Your task to perform on an android device: turn off location history Image 0: 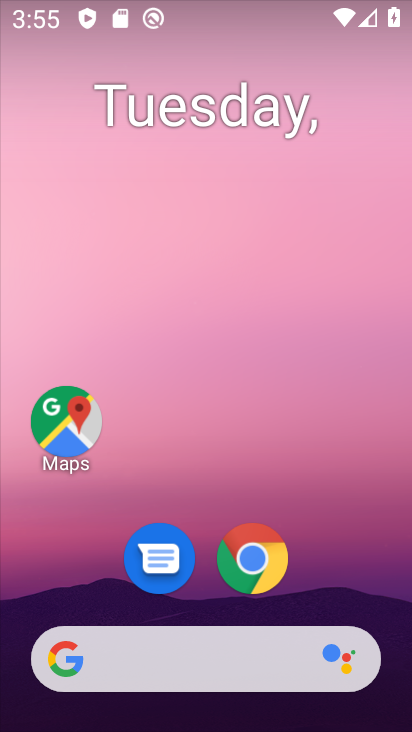
Step 0: click (71, 431)
Your task to perform on an android device: turn off location history Image 1: 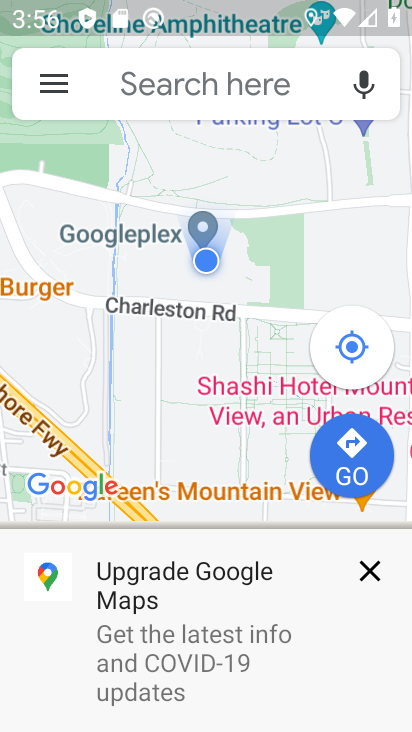
Step 1: click (42, 86)
Your task to perform on an android device: turn off location history Image 2: 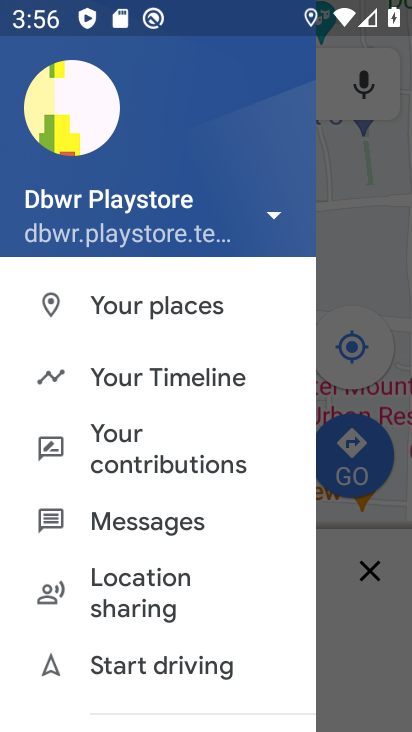
Step 2: click (207, 390)
Your task to perform on an android device: turn off location history Image 3: 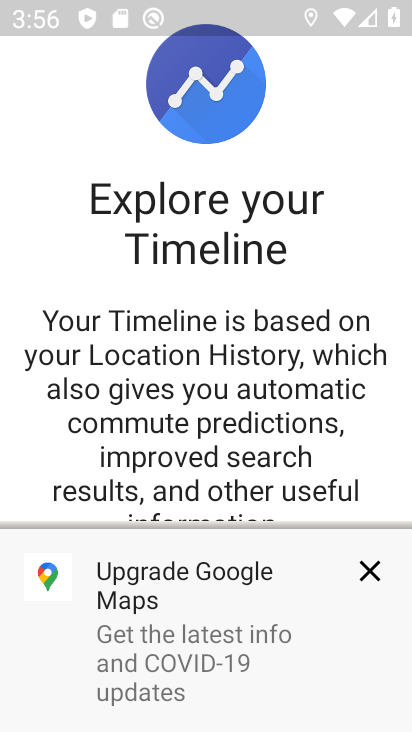
Step 3: click (373, 574)
Your task to perform on an android device: turn off location history Image 4: 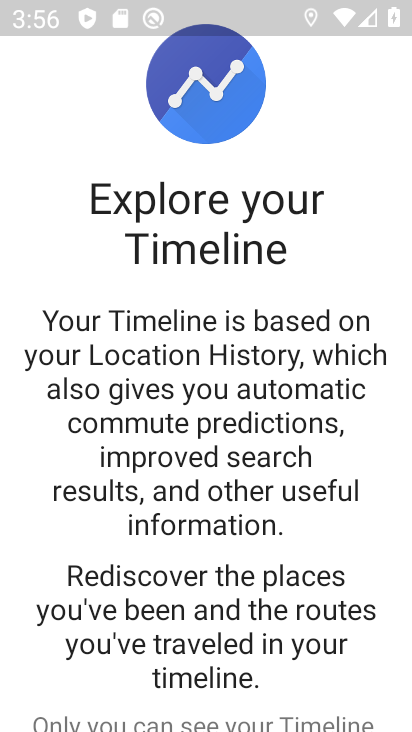
Step 4: drag from (333, 595) to (268, 232)
Your task to perform on an android device: turn off location history Image 5: 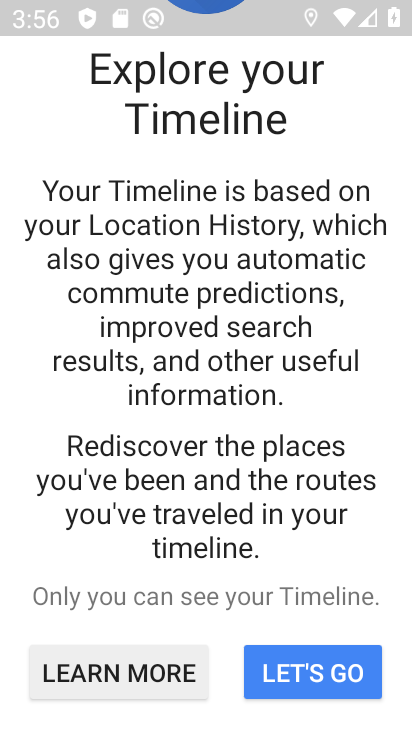
Step 5: click (336, 658)
Your task to perform on an android device: turn off location history Image 6: 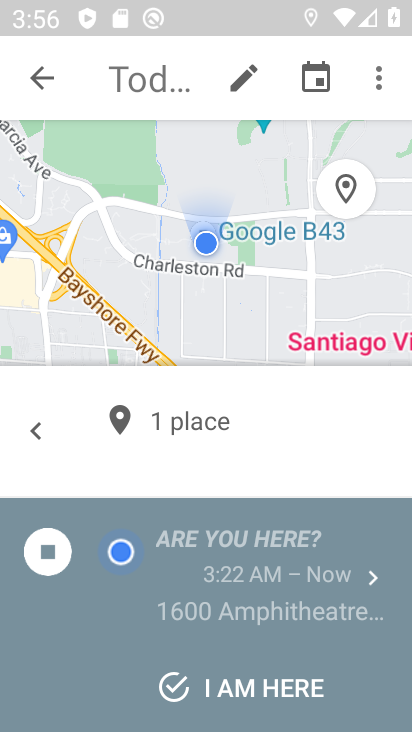
Step 6: click (387, 94)
Your task to perform on an android device: turn off location history Image 7: 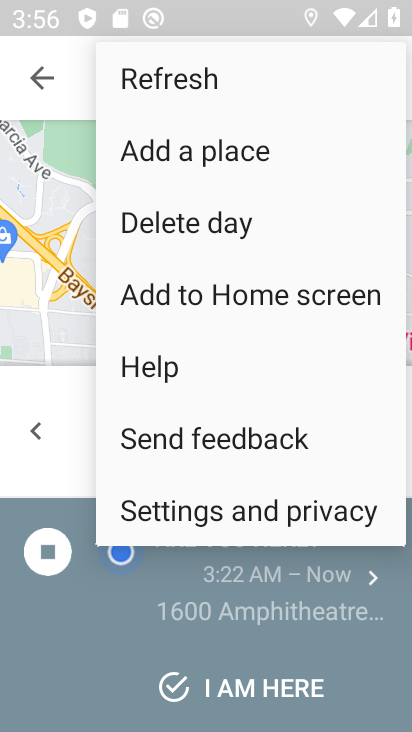
Step 7: click (317, 498)
Your task to perform on an android device: turn off location history Image 8: 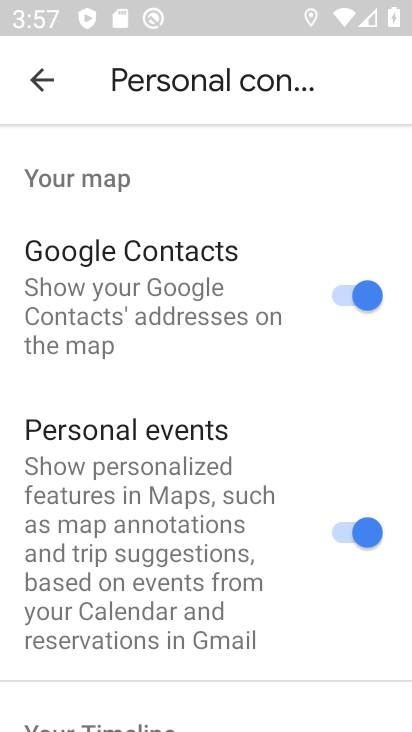
Step 8: drag from (269, 666) to (186, 66)
Your task to perform on an android device: turn off location history Image 9: 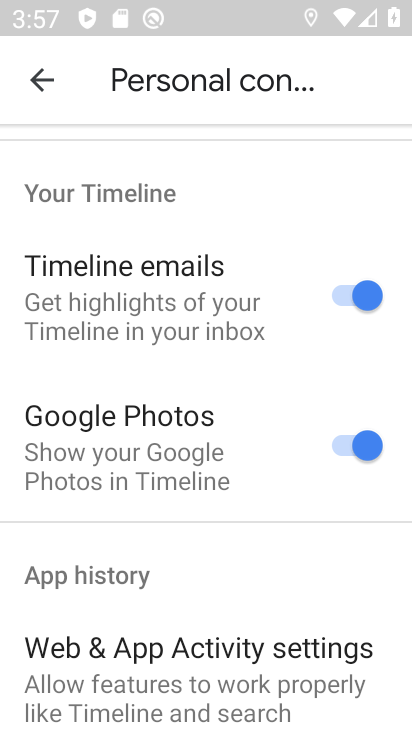
Step 9: drag from (168, 615) to (125, 216)
Your task to perform on an android device: turn off location history Image 10: 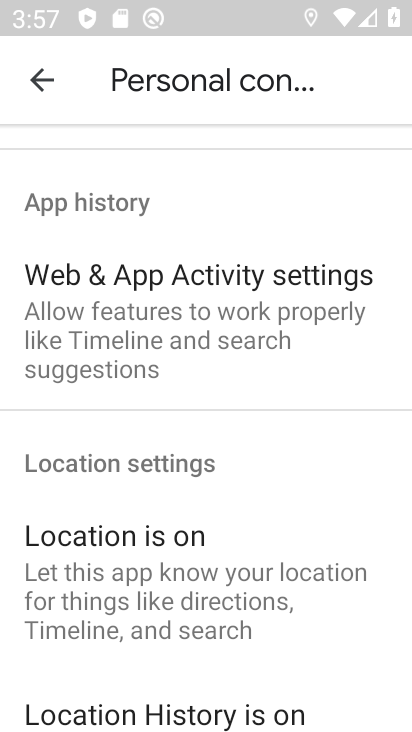
Step 10: drag from (222, 559) to (187, 203)
Your task to perform on an android device: turn off location history Image 11: 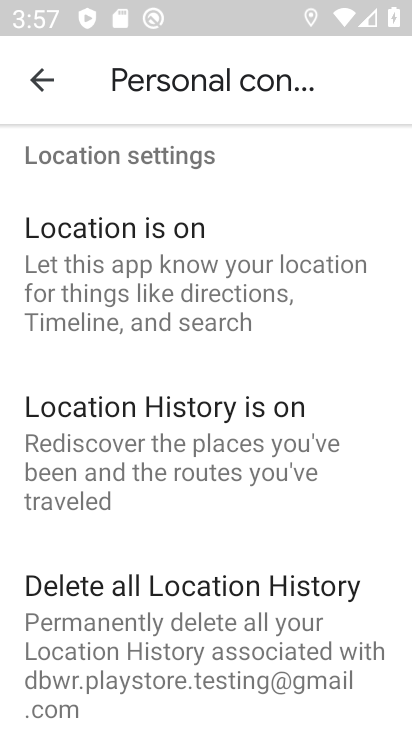
Step 11: click (248, 439)
Your task to perform on an android device: turn off location history Image 12: 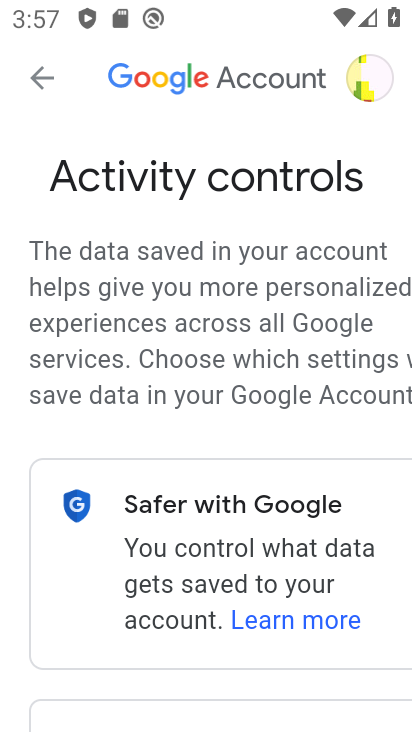
Step 12: drag from (235, 691) to (211, 225)
Your task to perform on an android device: turn off location history Image 13: 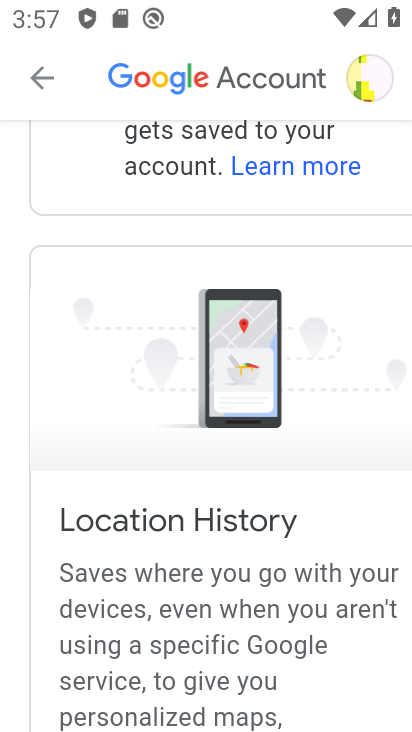
Step 13: drag from (263, 680) to (228, 209)
Your task to perform on an android device: turn off location history Image 14: 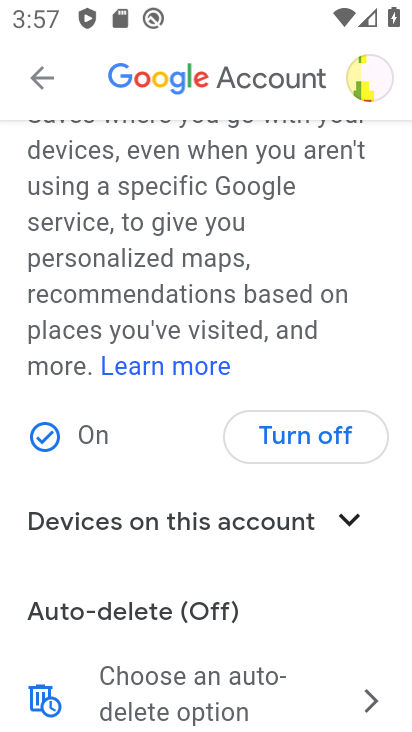
Step 14: click (312, 427)
Your task to perform on an android device: turn off location history Image 15: 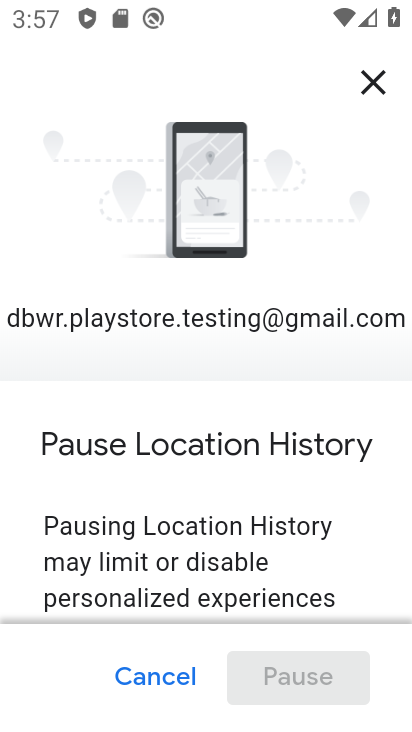
Step 15: drag from (304, 592) to (239, 192)
Your task to perform on an android device: turn off location history Image 16: 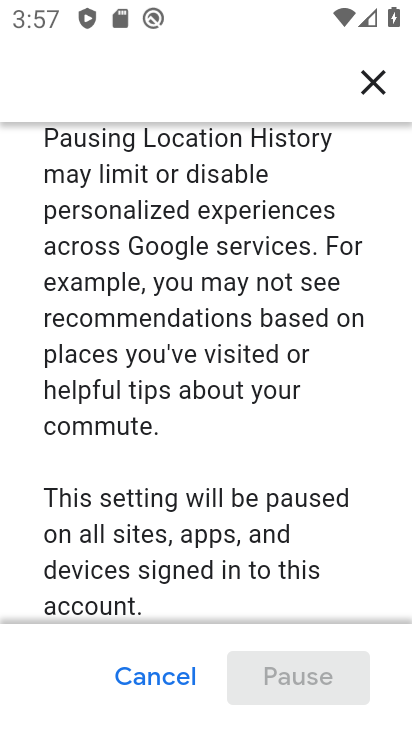
Step 16: drag from (328, 541) to (234, 239)
Your task to perform on an android device: turn off location history Image 17: 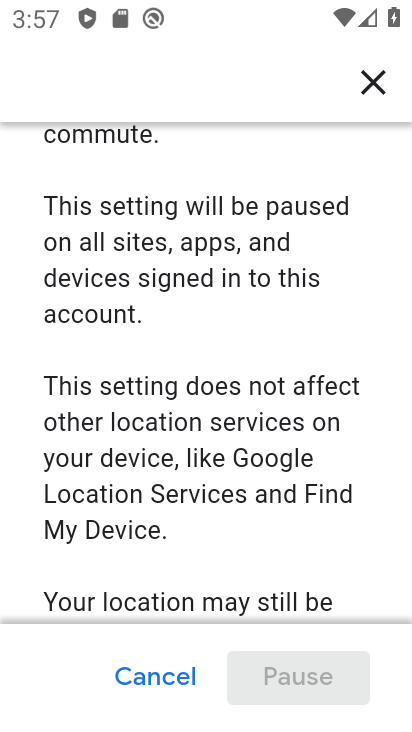
Step 17: drag from (302, 540) to (213, 231)
Your task to perform on an android device: turn off location history Image 18: 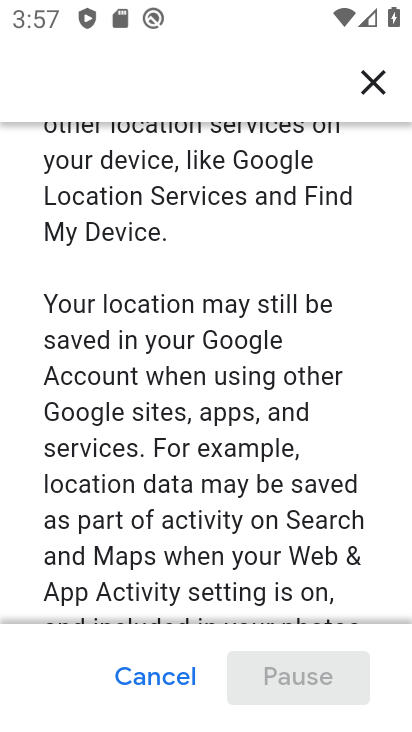
Step 18: drag from (346, 548) to (197, 165)
Your task to perform on an android device: turn off location history Image 19: 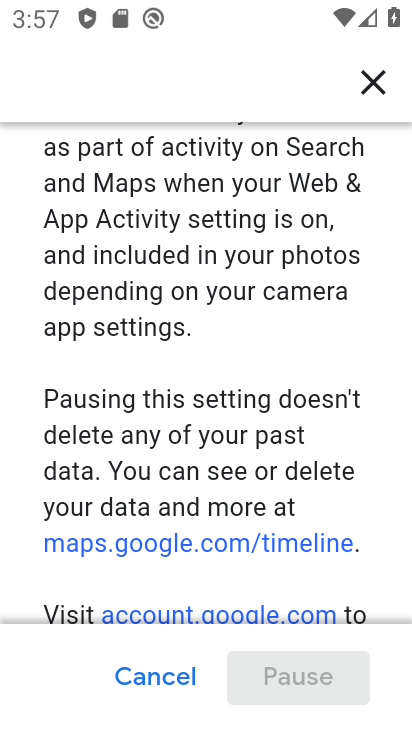
Step 19: drag from (265, 505) to (179, 179)
Your task to perform on an android device: turn off location history Image 20: 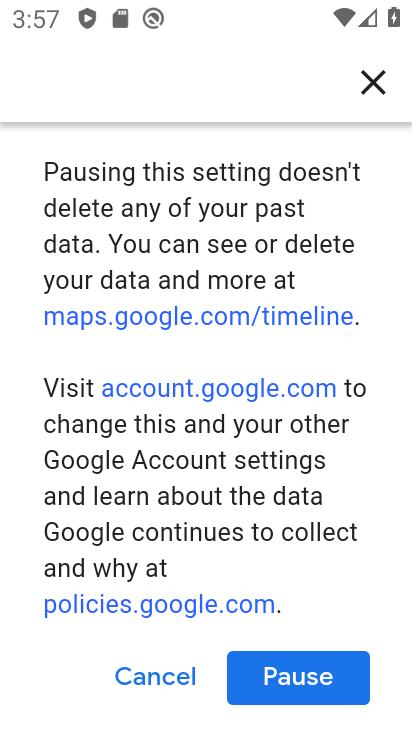
Step 20: click (290, 665)
Your task to perform on an android device: turn off location history Image 21: 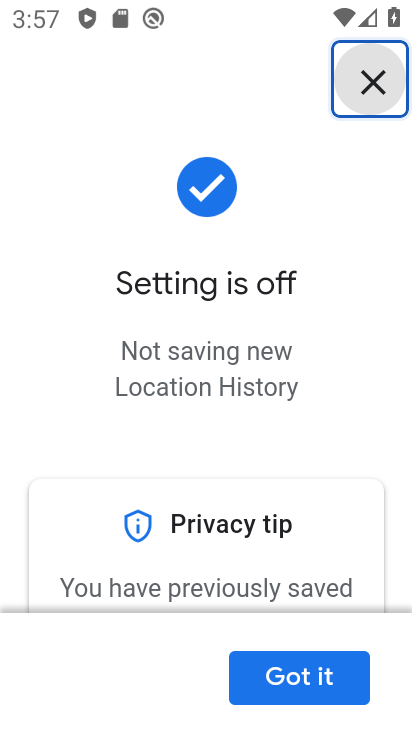
Step 21: click (317, 671)
Your task to perform on an android device: turn off location history Image 22: 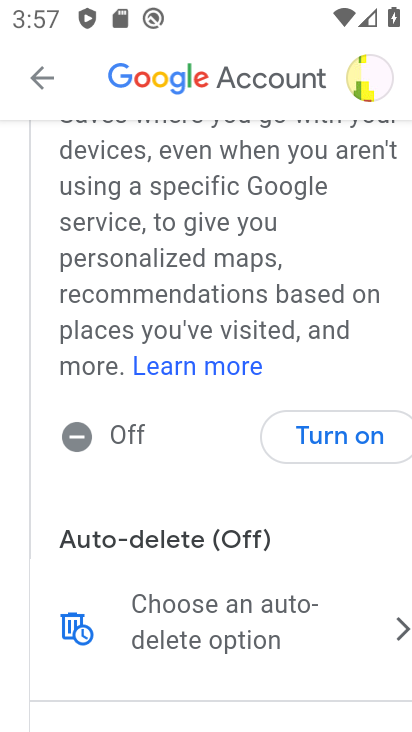
Step 22: task complete